Your task to perform on an android device: delete browsing data in the chrome app Image 0: 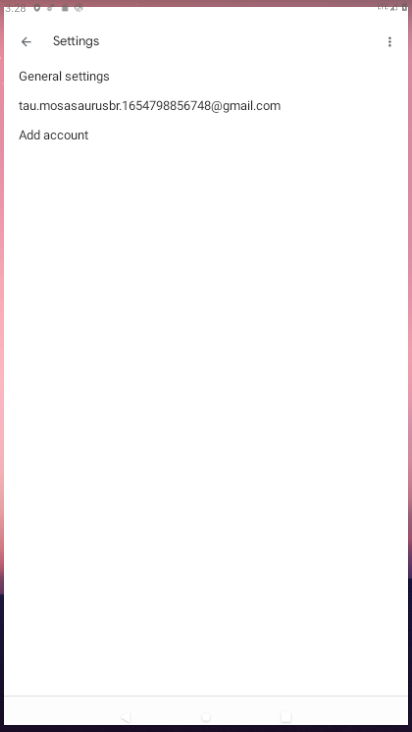
Step 0: press home button
Your task to perform on an android device: delete browsing data in the chrome app Image 1: 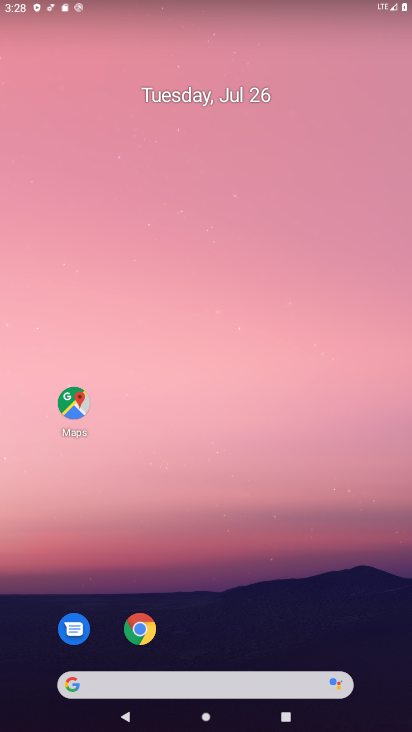
Step 1: click (139, 631)
Your task to perform on an android device: delete browsing data in the chrome app Image 2: 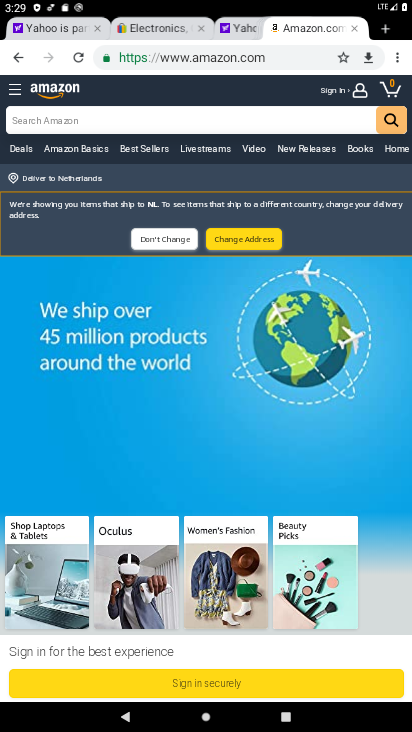
Step 2: click (399, 61)
Your task to perform on an android device: delete browsing data in the chrome app Image 3: 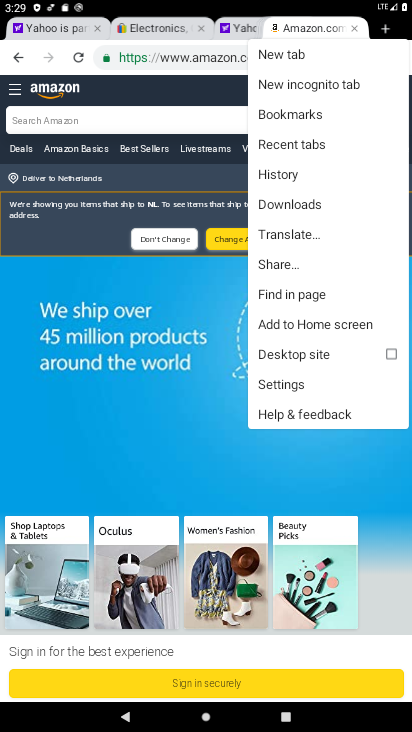
Step 3: click (276, 176)
Your task to perform on an android device: delete browsing data in the chrome app Image 4: 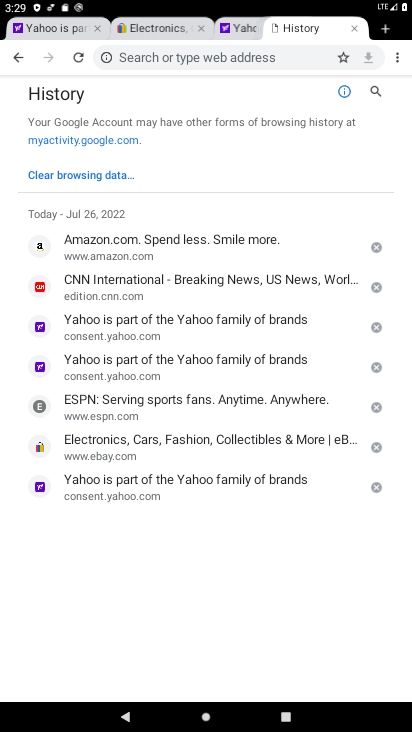
Step 4: click (91, 171)
Your task to perform on an android device: delete browsing data in the chrome app Image 5: 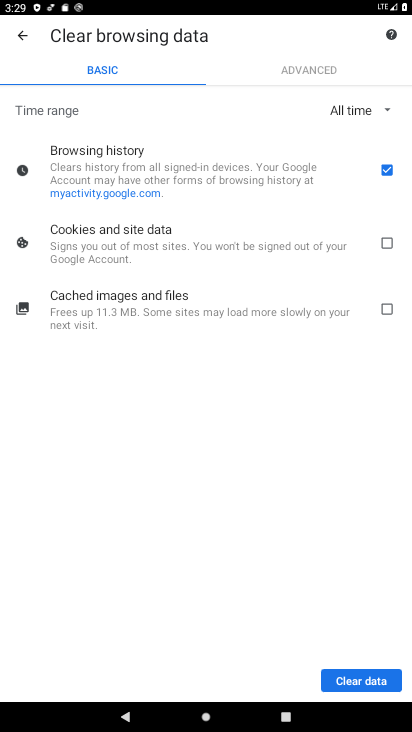
Step 5: click (367, 678)
Your task to perform on an android device: delete browsing data in the chrome app Image 6: 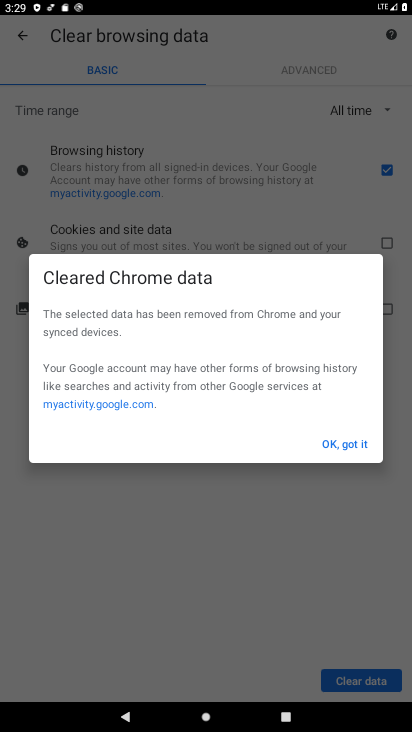
Step 6: click (346, 442)
Your task to perform on an android device: delete browsing data in the chrome app Image 7: 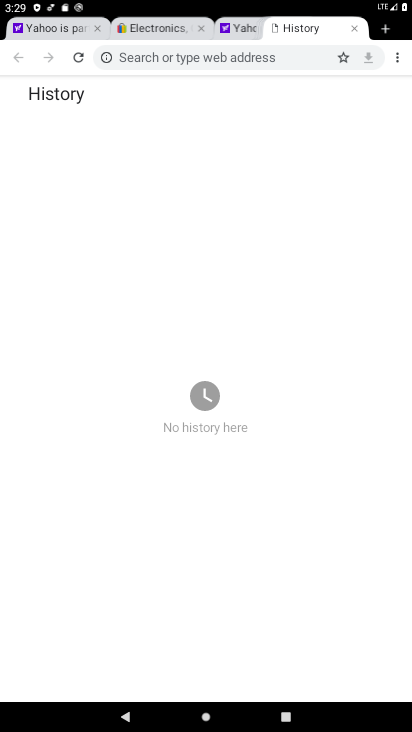
Step 7: task complete